Your task to perform on an android device: Open eBay Image 0: 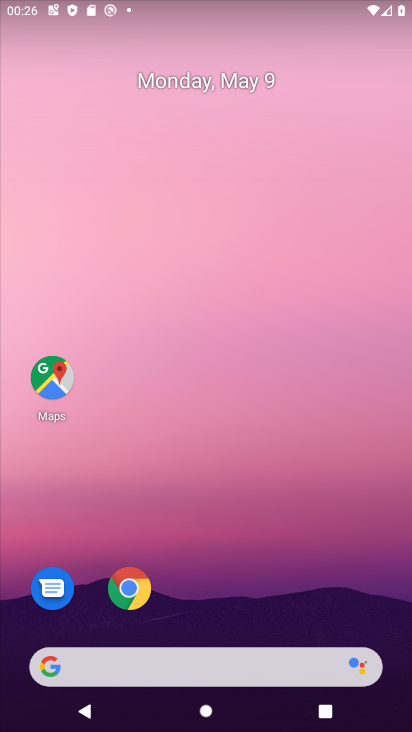
Step 0: click (131, 586)
Your task to perform on an android device: Open eBay Image 1: 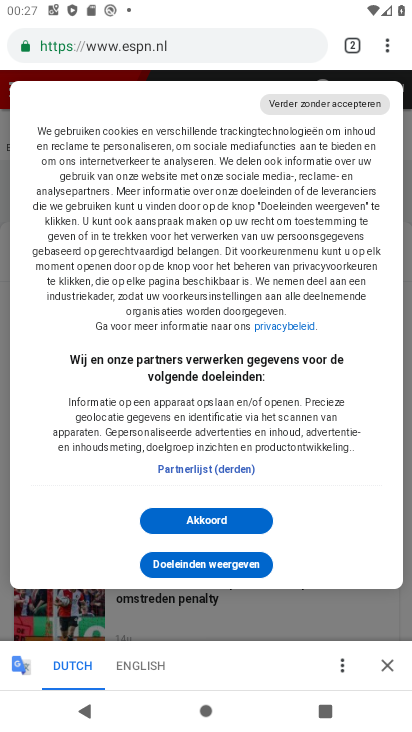
Step 1: click (383, 41)
Your task to perform on an android device: Open eBay Image 2: 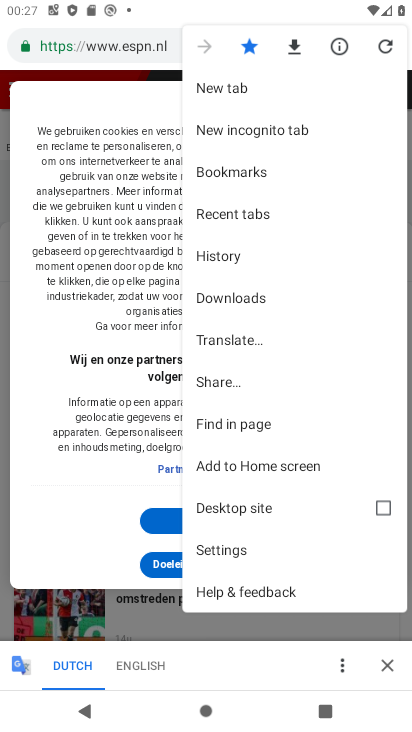
Step 2: click (228, 79)
Your task to perform on an android device: Open eBay Image 3: 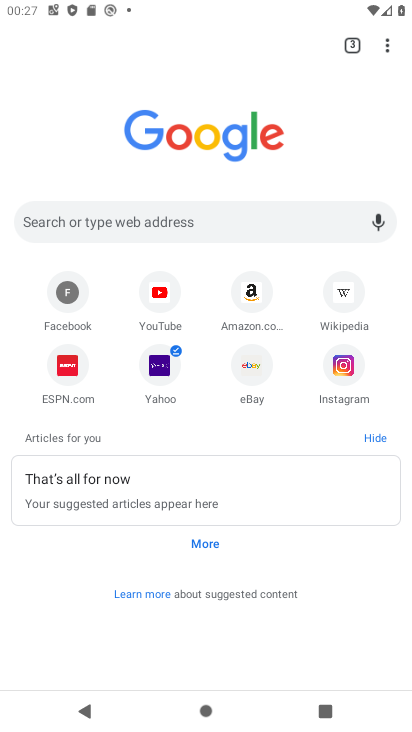
Step 3: click (257, 374)
Your task to perform on an android device: Open eBay Image 4: 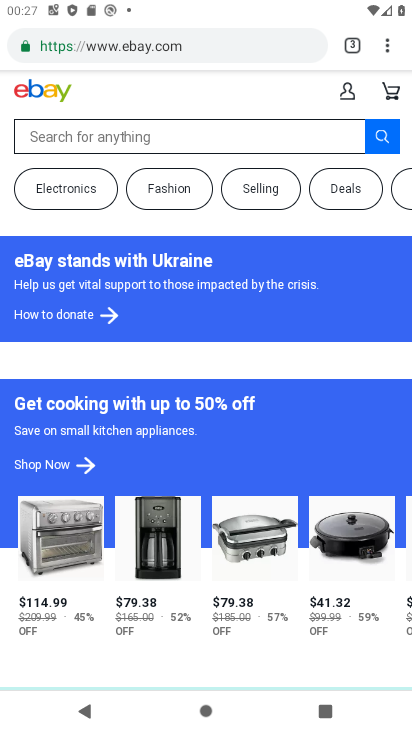
Step 4: task complete